Your task to perform on an android device: Do I have any events today? Image 0: 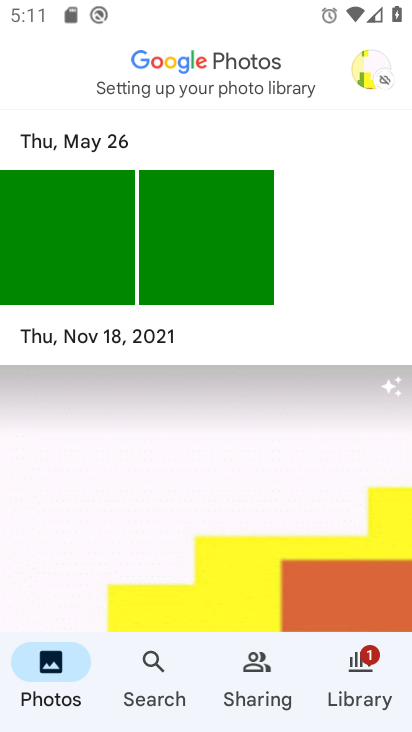
Step 0: press home button
Your task to perform on an android device: Do I have any events today? Image 1: 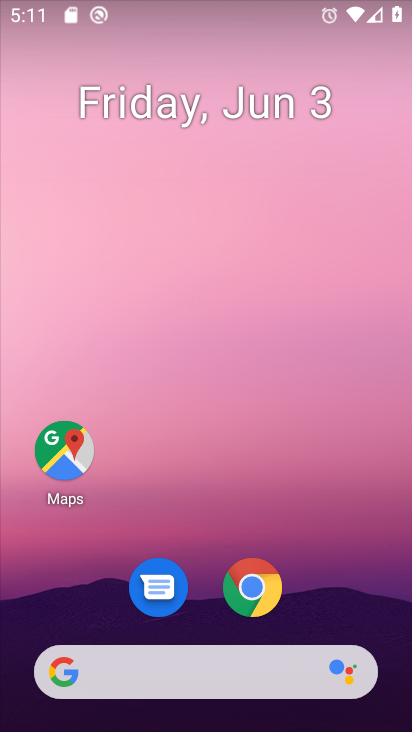
Step 1: drag from (154, 728) to (89, 35)
Your task to perform on an android device: Do I have any events today? Image 2: 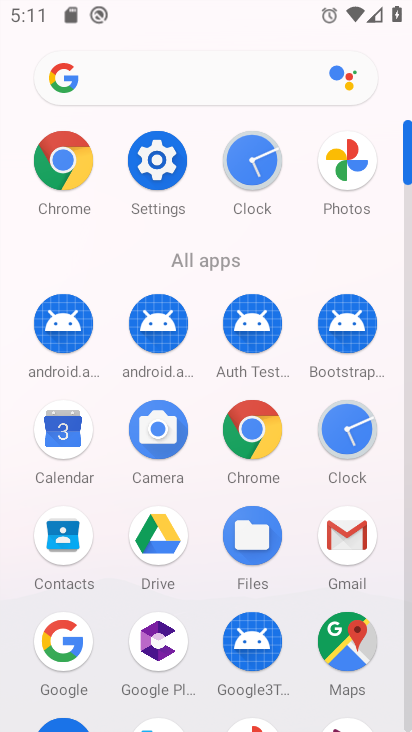
Step 2: click (35, 430)
Your task to perform on an android device: Do I have any events today? Image 3: 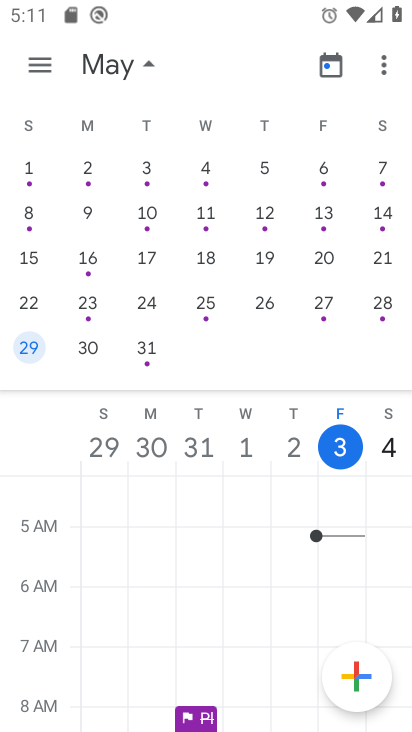
Step 3: drag from (370, 342) to (7, 344)
Your task to perform on an android device: Do I have any events today? Image 4: 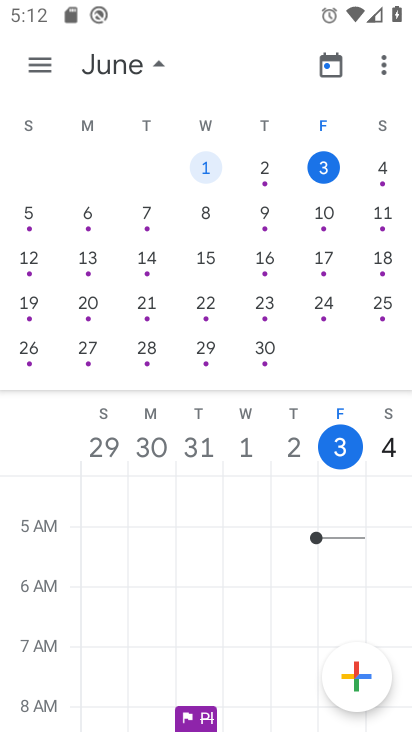
Step 4: click (321, 178)
Your task to perform on an android device: Do I have any events today? Image 5: 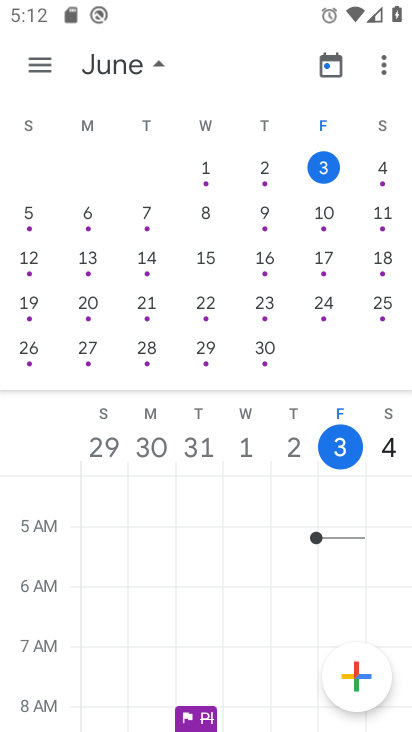
Step 5: click (155, 60)
Your task to perform on an android device: Do I have any events today? Image 6: 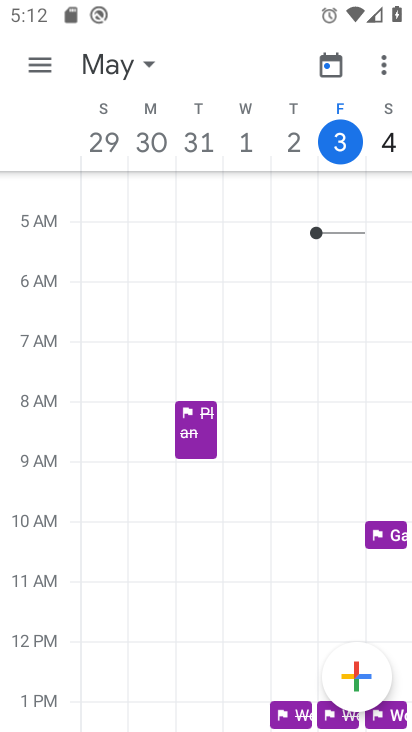
Step 6: drag from (283, 630) to (290, 241)
Your task to perform on an android device: Do I have any events today? Image 7: 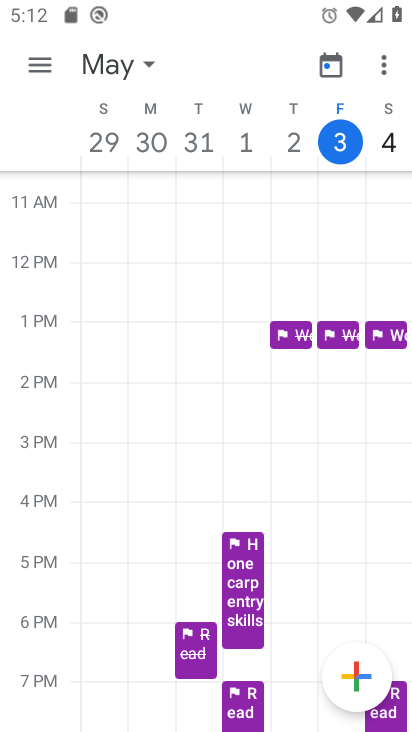
Step 7: click (274, 600)
Your task to perform on an android device: Do I have any events today? Image 8: 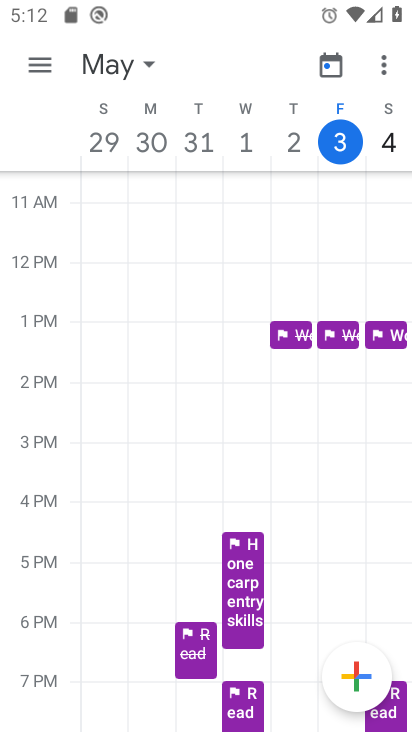
Step 8: task complete